Your task to perform on an android device: Open the Play Movies app and select the watchlist tab. Image 0: 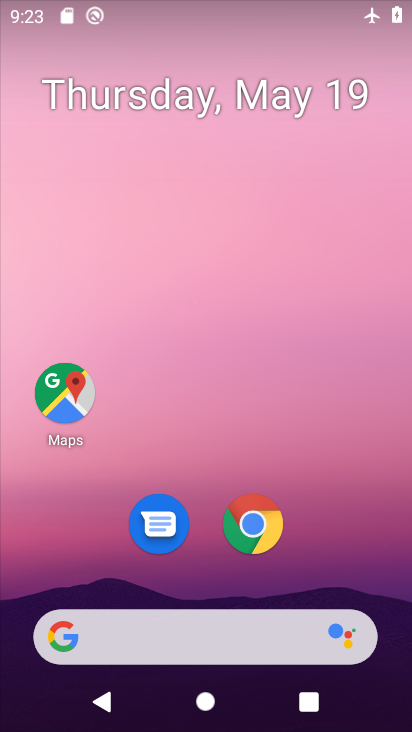
Step 0: drag from (306, 457) to (357, 30)
Your task to perform on an android device: Open the Play Movies app and select the watchlist tab. Image 1: 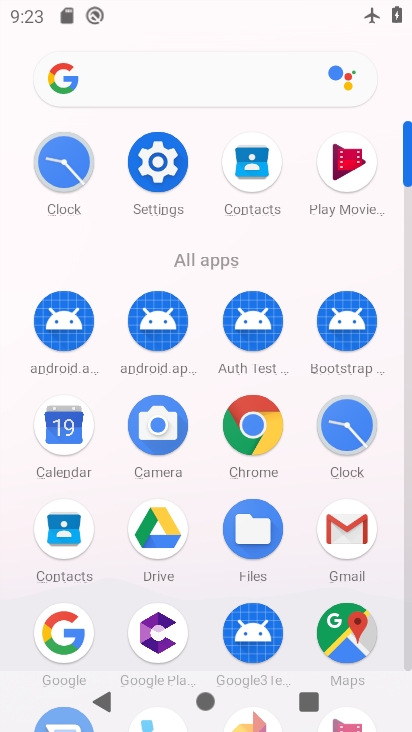
Step 1: click (347, 142)
Your task to perform on an android device: Open the Play Movies app and select the watchlist tab. Image 2: 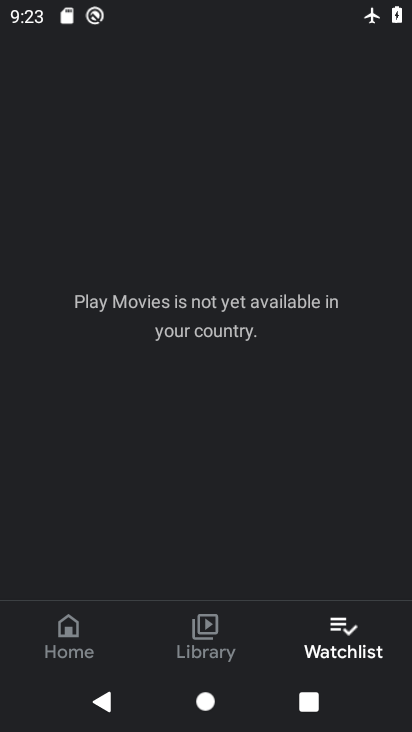
Step 2: task complete